Your task to perform on an android device: Empty the shopping cart on walmart. Search for "bose quietcomfort 35" on walmart, select the first entry, and add it to the cart. Image 0: 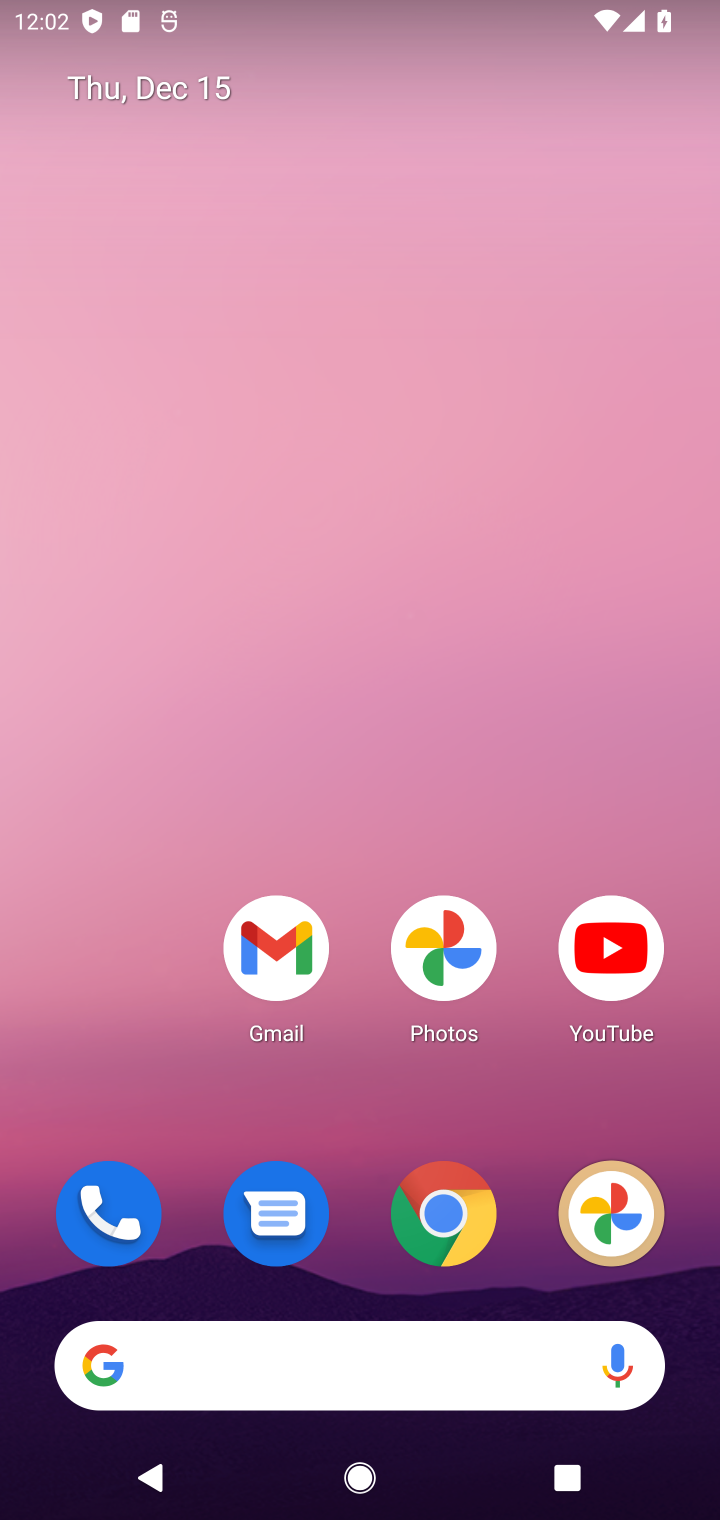
Step 0: click (433, 1231)
Your task to perform on an android device: Empty the shopping cart on walmart. Search for "bose quietcomfort 35" on walmart, select the first entry, and add it to the cart. Image 1: 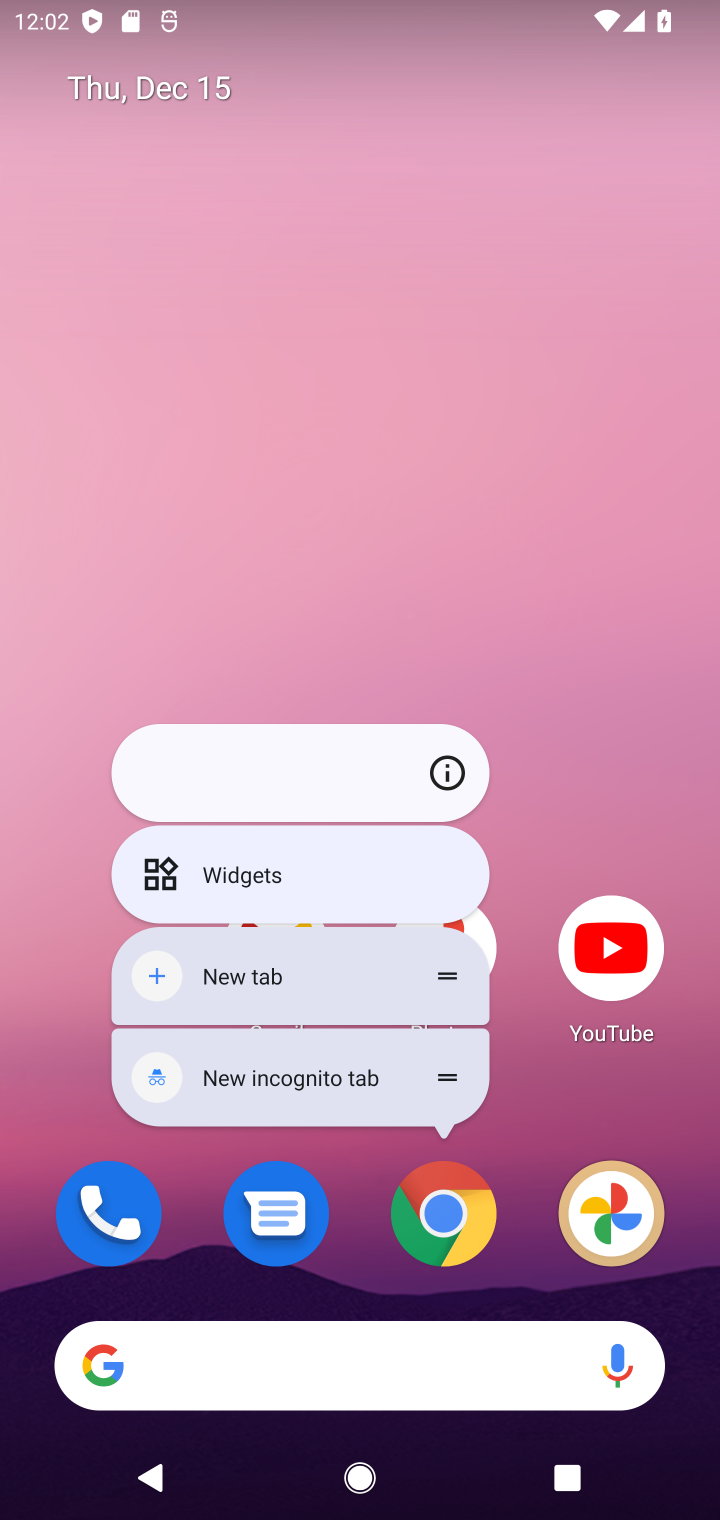
Step 1: click (328, 1406)
Your task to perform on an android device: Empty the shopping cart on walmart. Search for "bose quietcomfort 35" on walmart, select the first entry, and add it to the cart. Image 2: 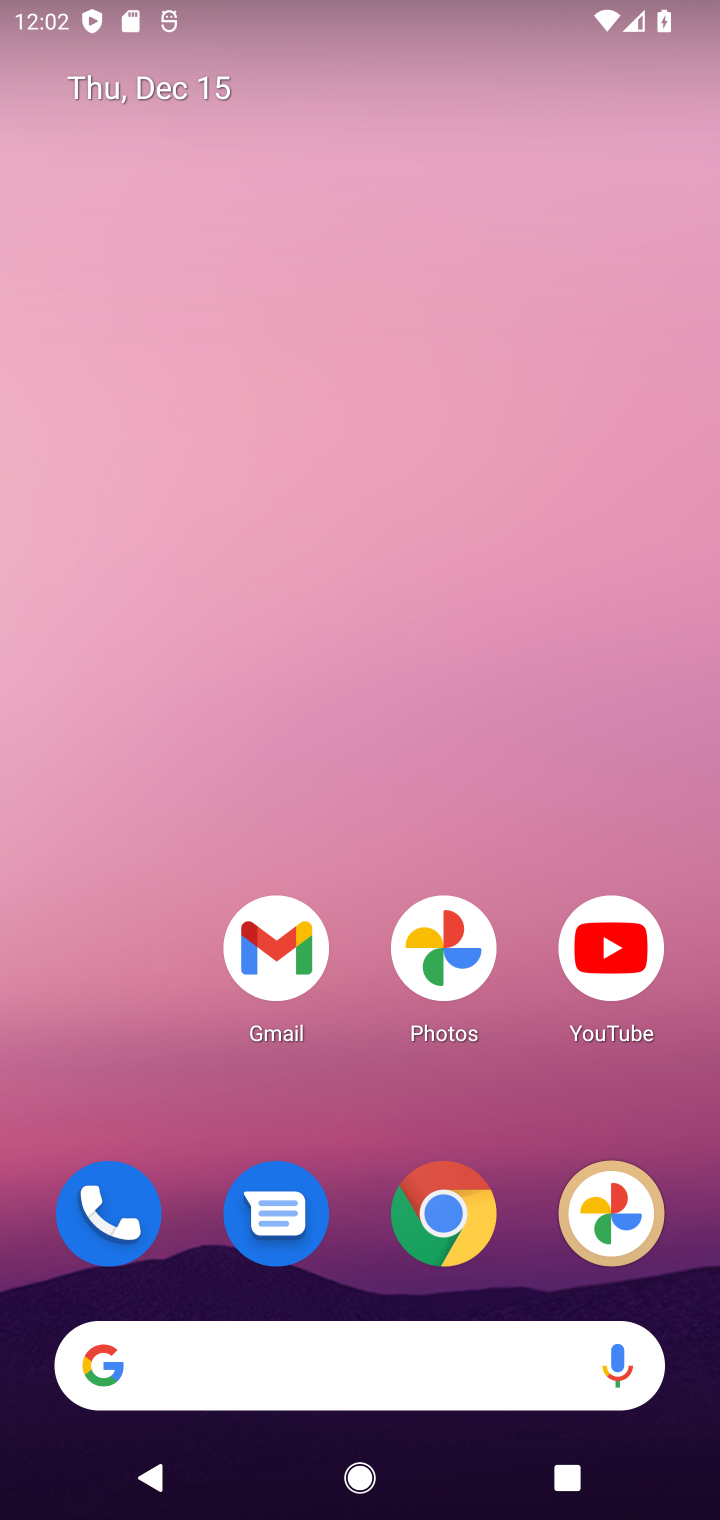
Step 2: click (450, 1337)
Your task to perform on an android device: Empty the shopping cart on walmart. Search for "bose quietcomfort 35" on walmart, select the first entry, and add it to the cart. Image 3: 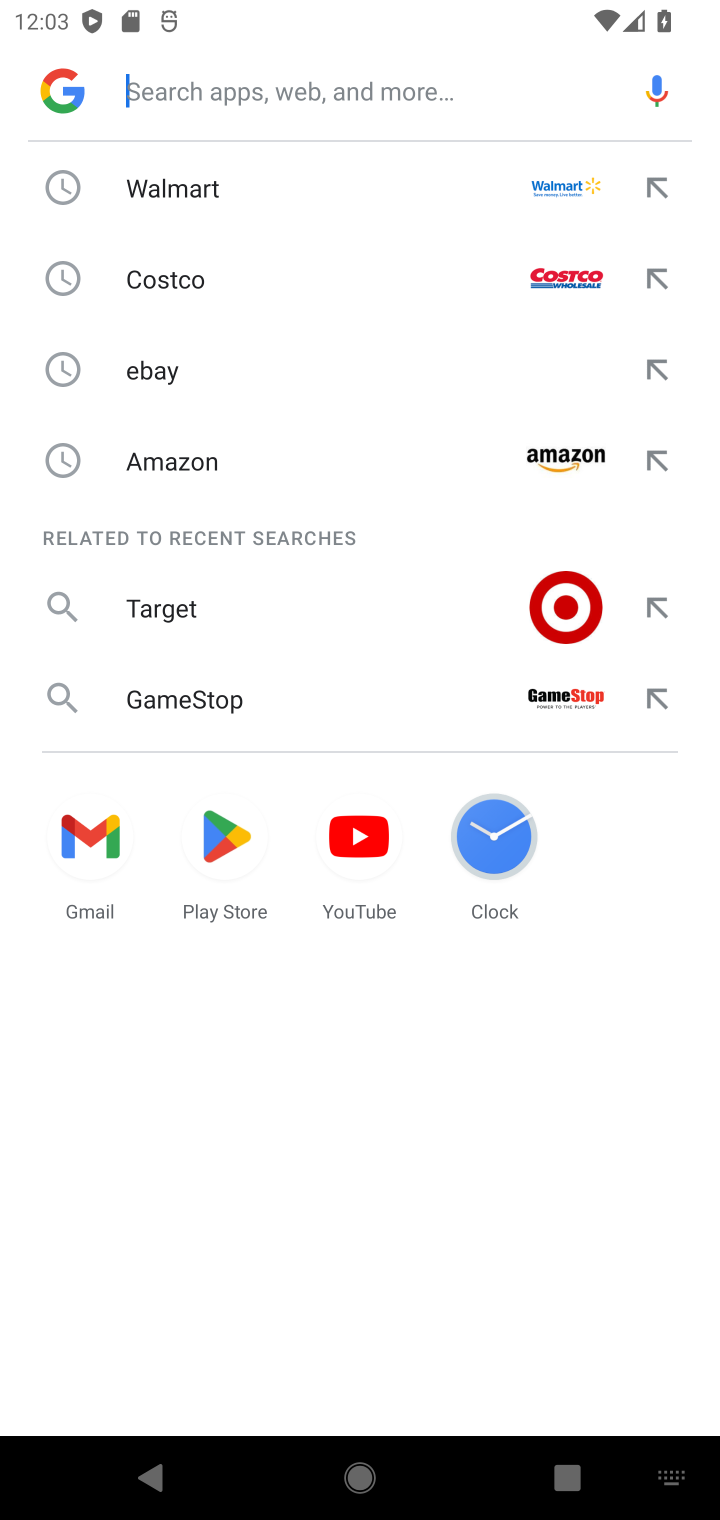
Step 3: click (257, 192)
Your task to perform on an android device: Empty the shopping cart on walmart. Search for "bose quietcomfort 35" on walmart, select the first entry, and add it to the cart. Image 4: 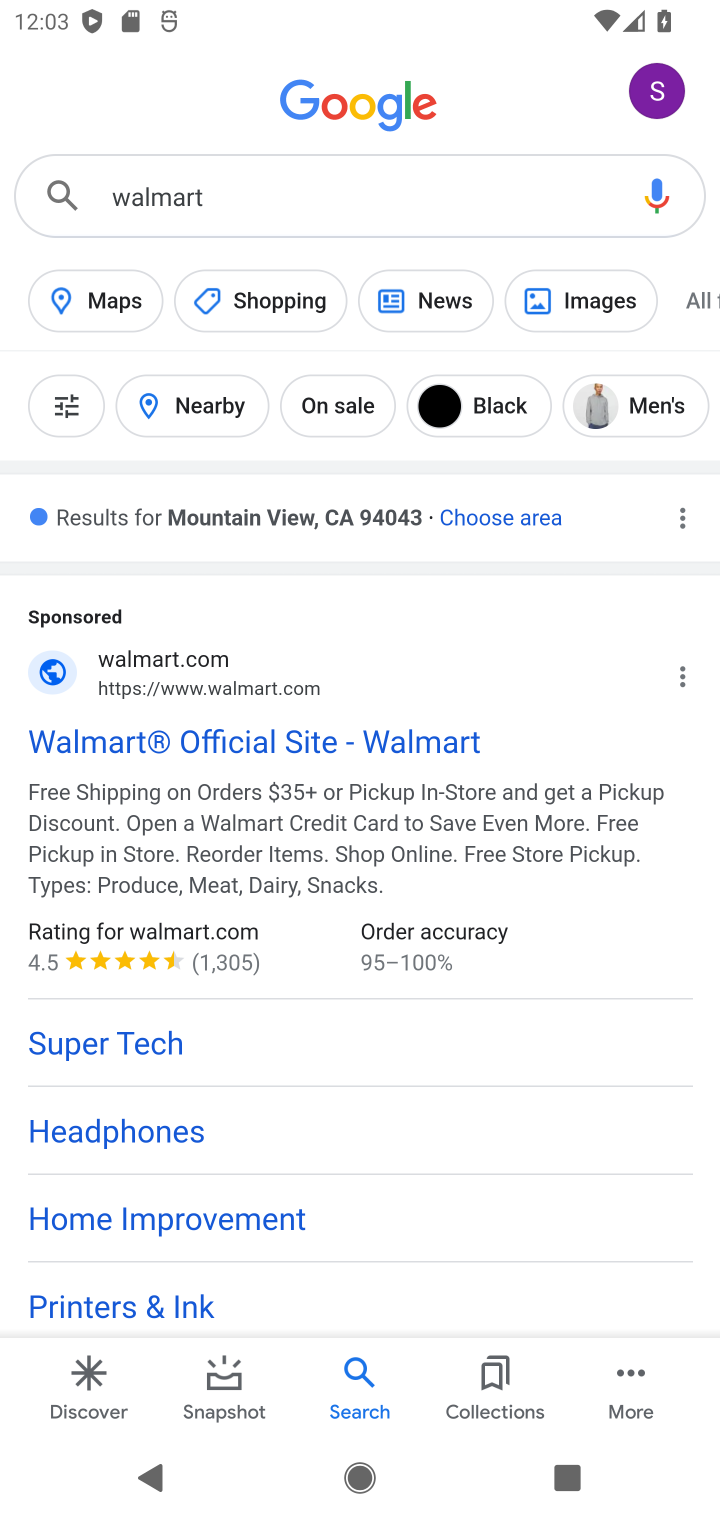
Step 4: click (163, 705)
Your task to perform on an android device: Empty the shopping cart on walmart. Search for "bose quietcomfort 35" on walmart, select the first entry, and add it to the cart. Image 5: 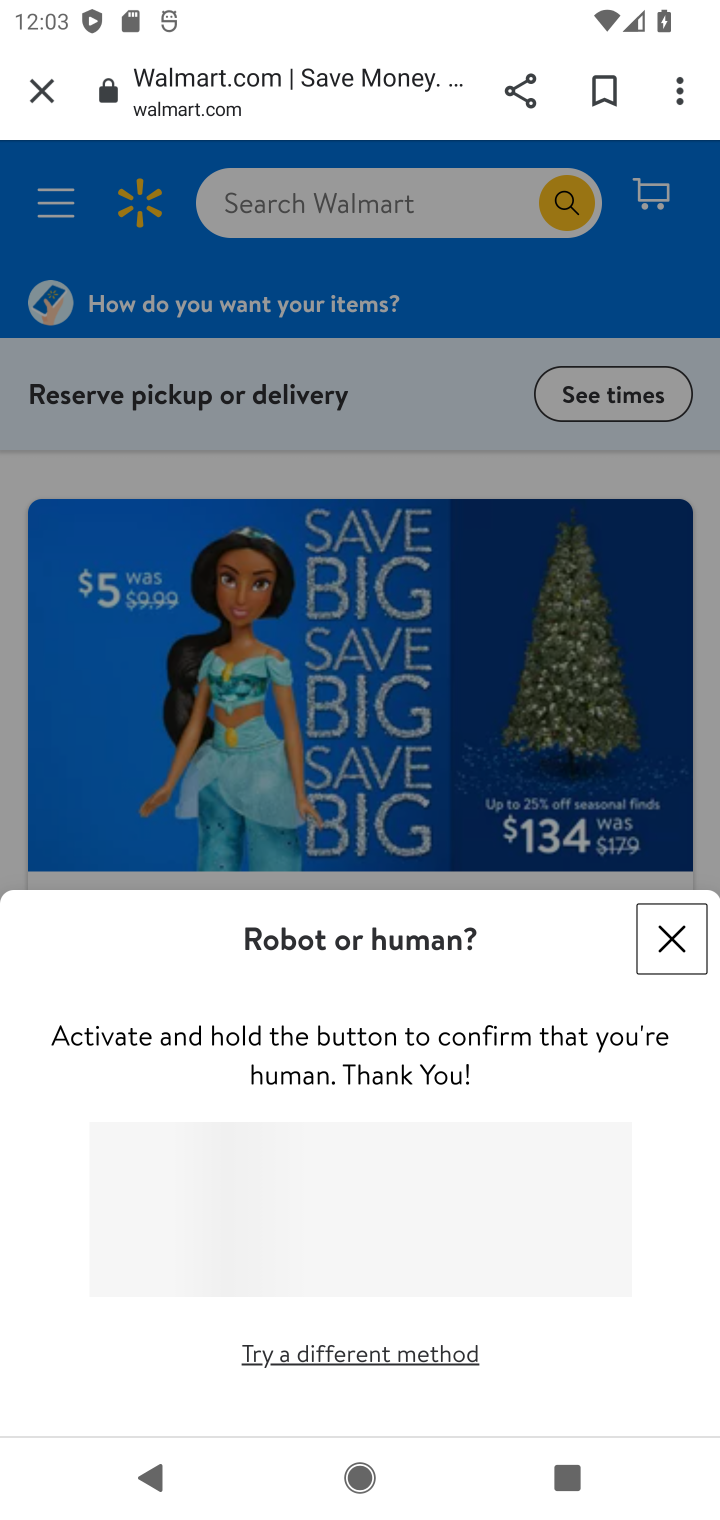
Step 5: click (336, 206)
Your task to perform on an android device: Empty the shopping cart on walmart. Search for "bose quietcomfort 35" on walmart, select the first entry, and add it to the cart. Image 6: 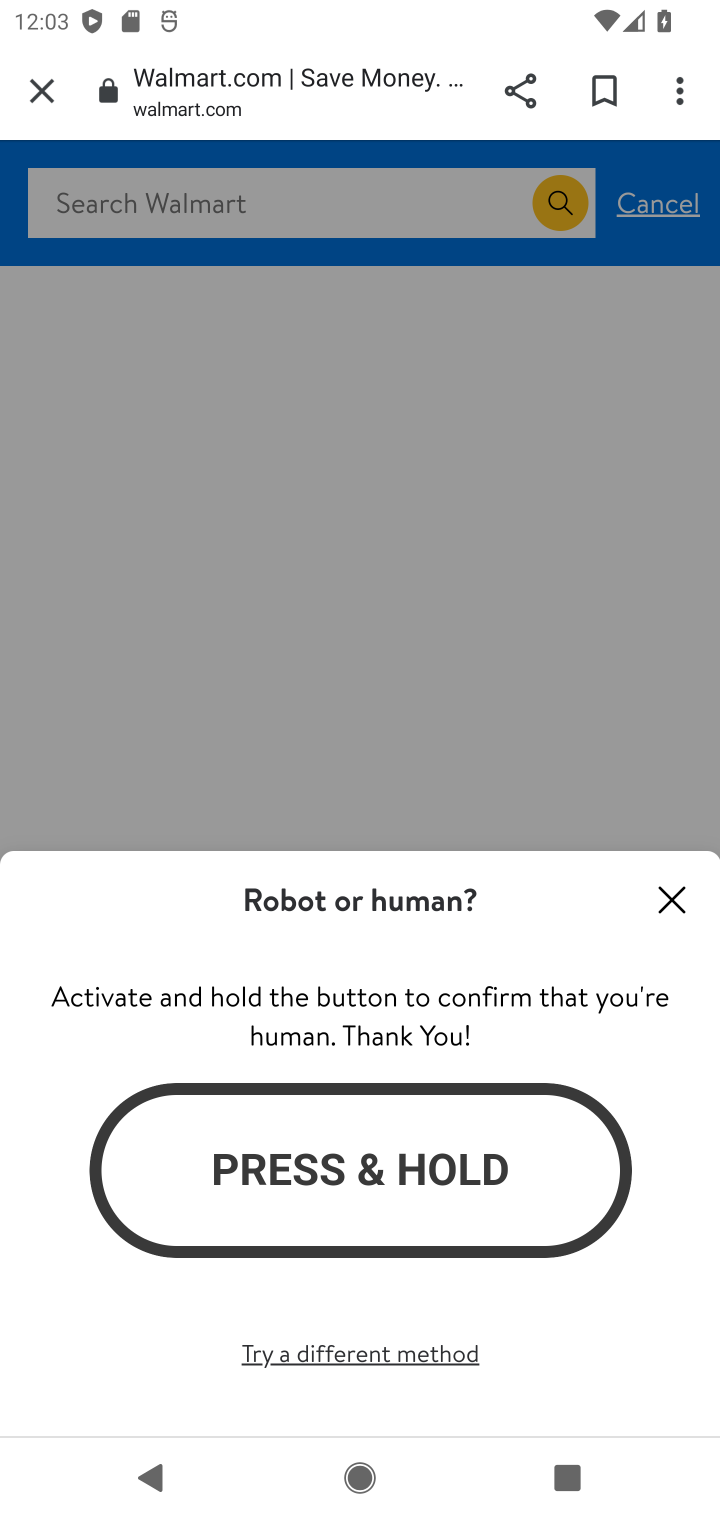
Step 6: type "bose quietcomfort 35"
Your task to perform on an android device: Empty the shopping cart on walmart. Search for "bose quietcomfort 35" on walmart, select the first entry, and add it to the cart. Image 7: 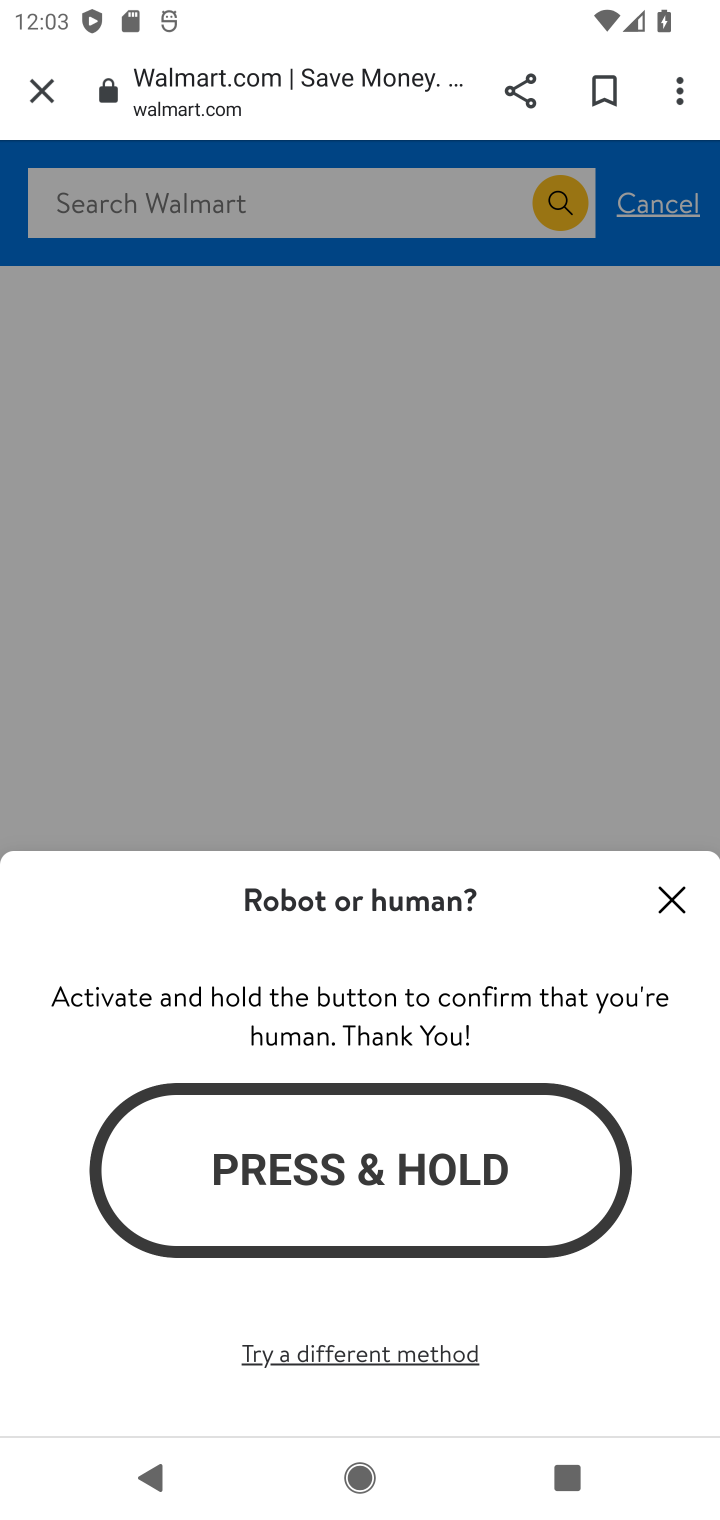
Step 7: click (682, 909)
Your task to perform on an android device: Empty the shopping cart on walmart. Search for "bose quietcomfort 35" on walmart, select the first entry, and add it to the cart. Image 8: 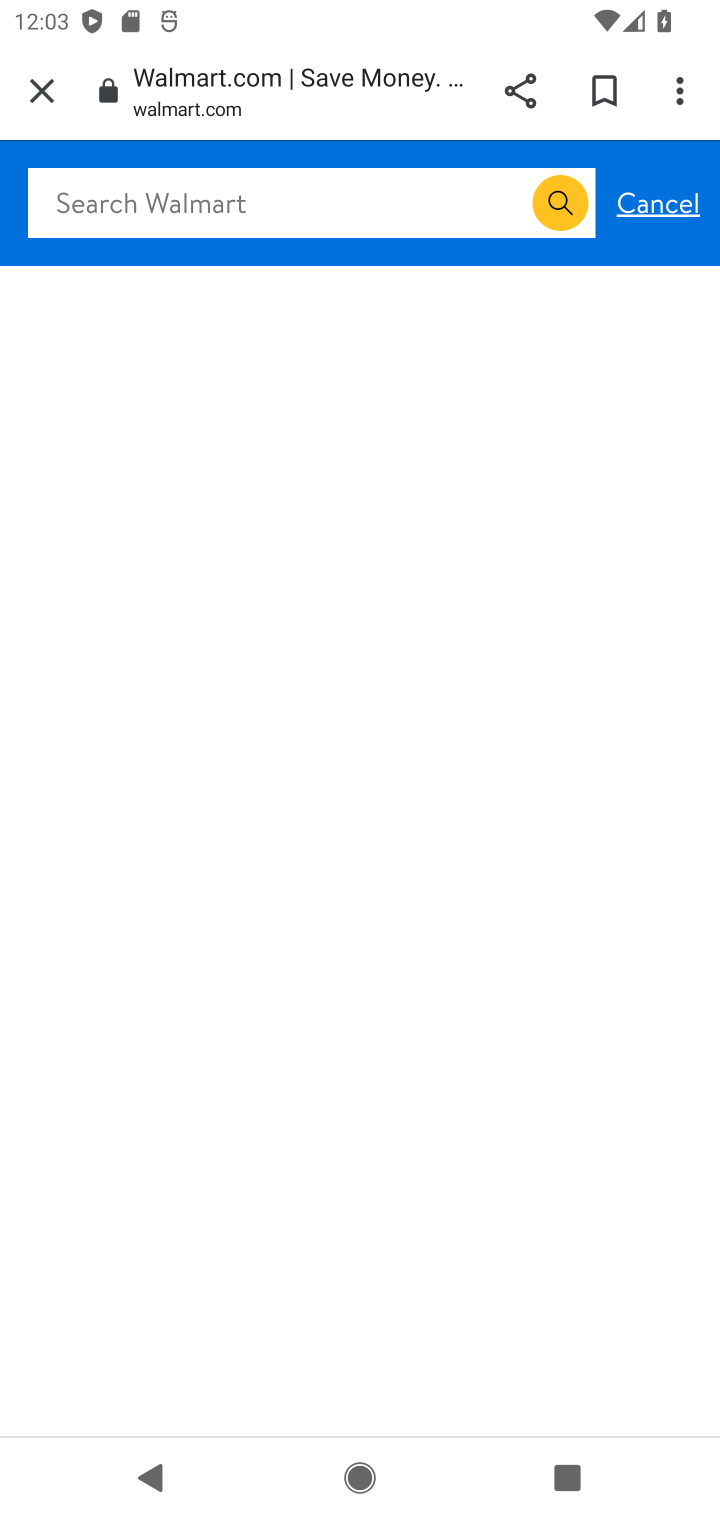
Step 8: click (230, 210)
Your task to perform on an android device: Empty the shopping cart on walmart. Search for "bose quietcomfort 35" on walmart, select the first entry, and add it to the cart. Image 9: 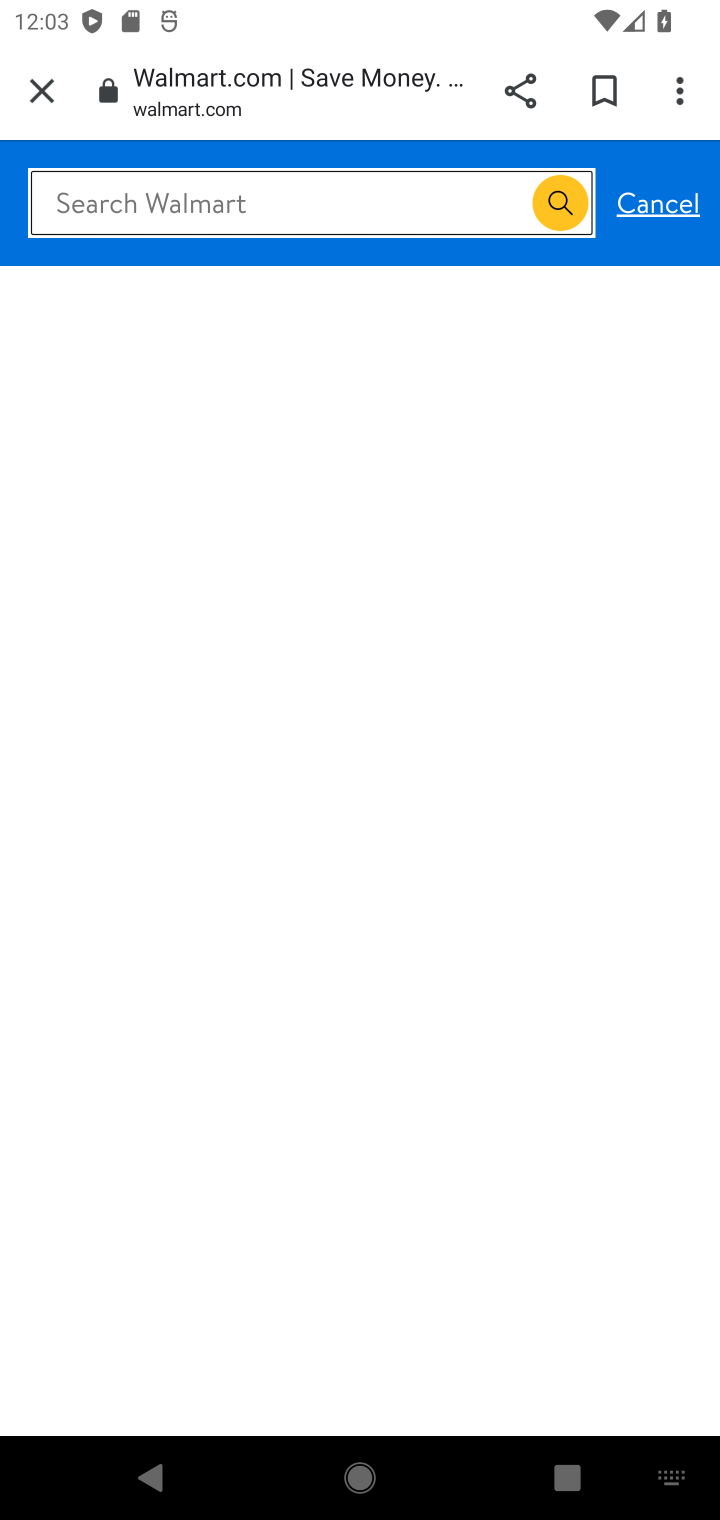
Step 9: type "bose quietcomfrt"
Your task to perform on an android device: Empty the shopping cart on walmart. Search for "bose quietcomfort 35" on walmart, select the first entry, and add it to the cart. Image 10: 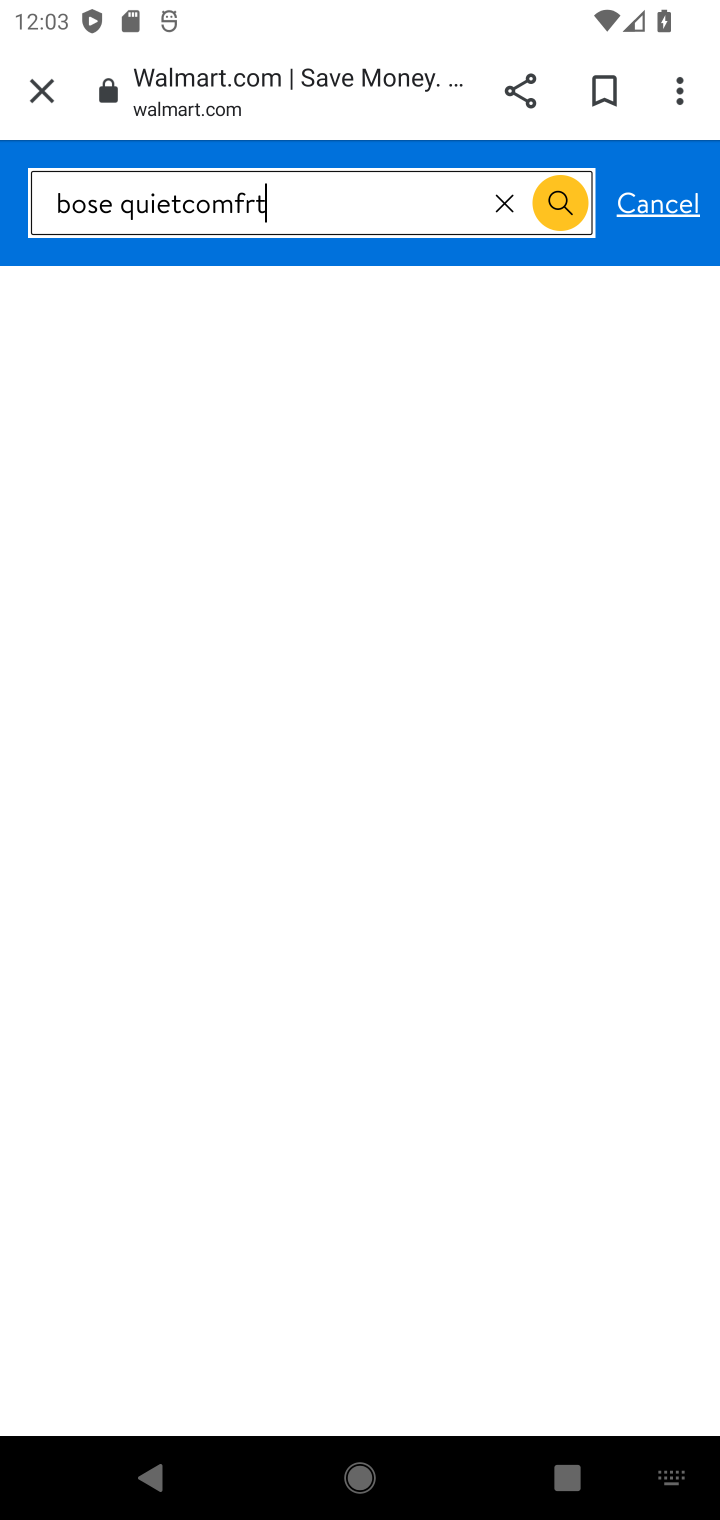
Step 10: click (557, 216)
Your task to perform on an android device: Empty the shopping cart on walmart. Search for "bose quietcomfort 35" on walmart, select the first entry, and add it to the cart. Image 11: 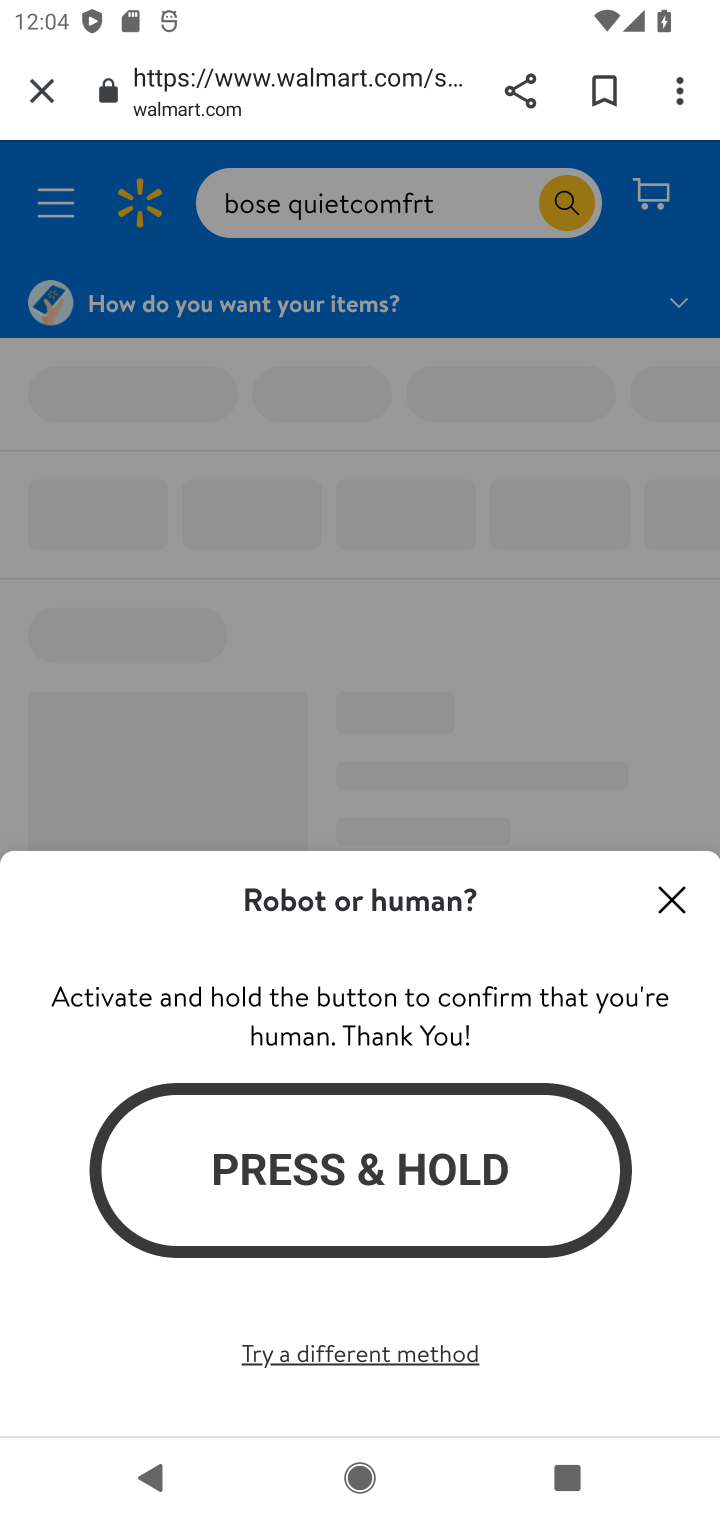
Step 11: click (248, 110)
Your task to perform on an android device: Empty the shopping cart on walmart. Search for "bose quietcomfort 35" on walmart, select the first entry, and add it to the cart. Image 12: 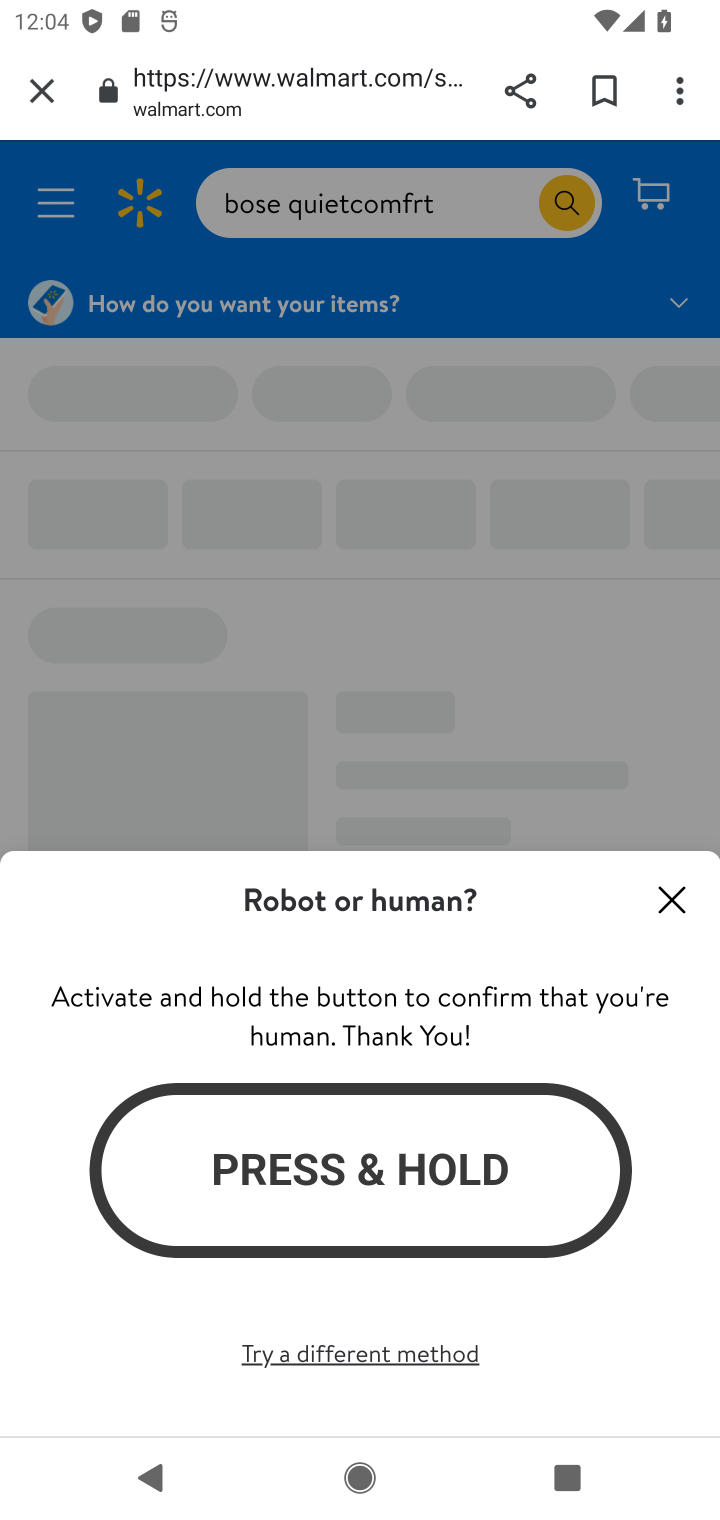
Step 12: click (556, 605)
Your task to perform on an android device: Empty the shopping cart on walmart. Search for "bose quietcomfort 35" on walmart, select the first entry, and add it to the cart. Image 13: 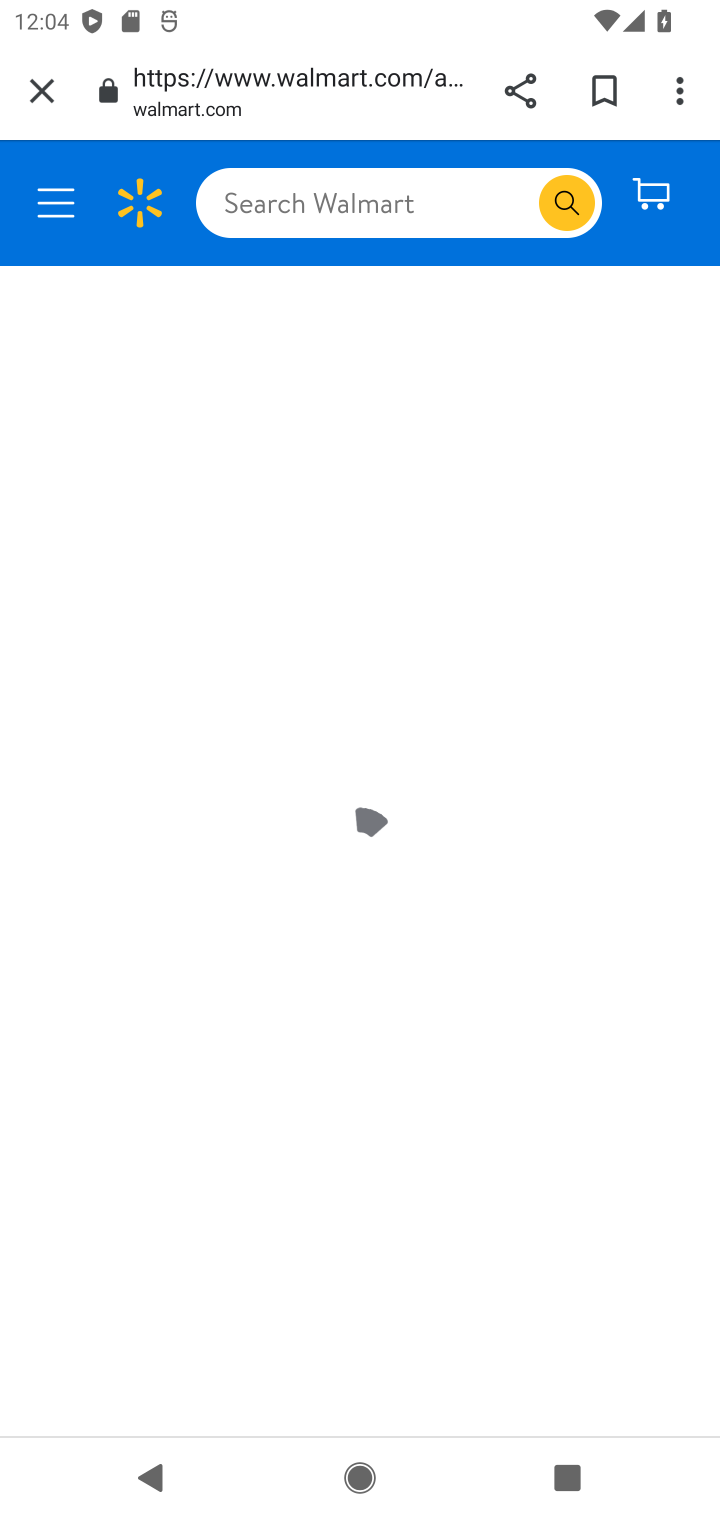
Step 13: click (680, 896)
Your task to perform on an android device: Empty the shopping cart on walmart. Search for "bose quietcomfort 35" on walmart, select the first entry, and add it to the cart. Image 14: 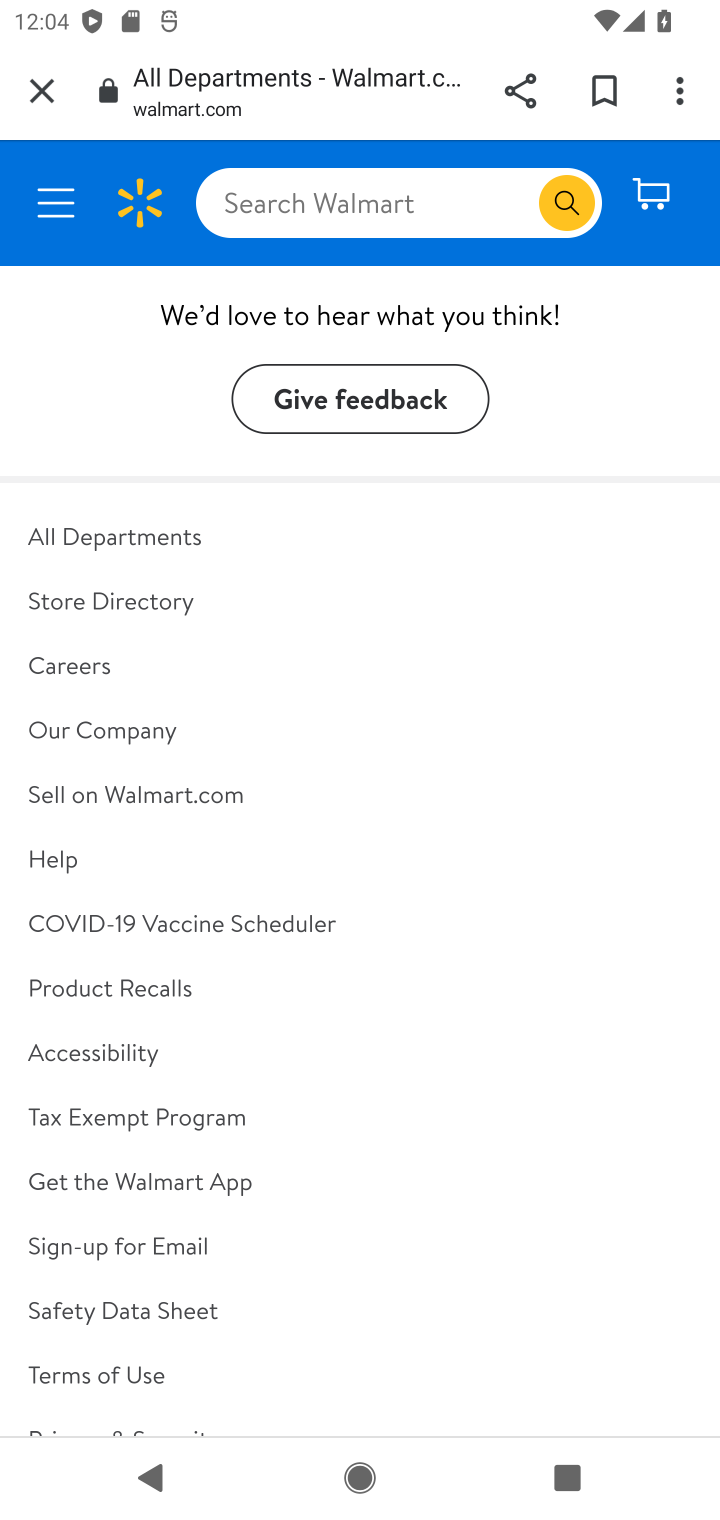
Step 14: click (321, 213)
Your task to perform on an android device: Empty the shopping cart on walmart. Search for "bose quietcomfort 35" on walmart, select the first entry, and add it to the cart. Image 15: 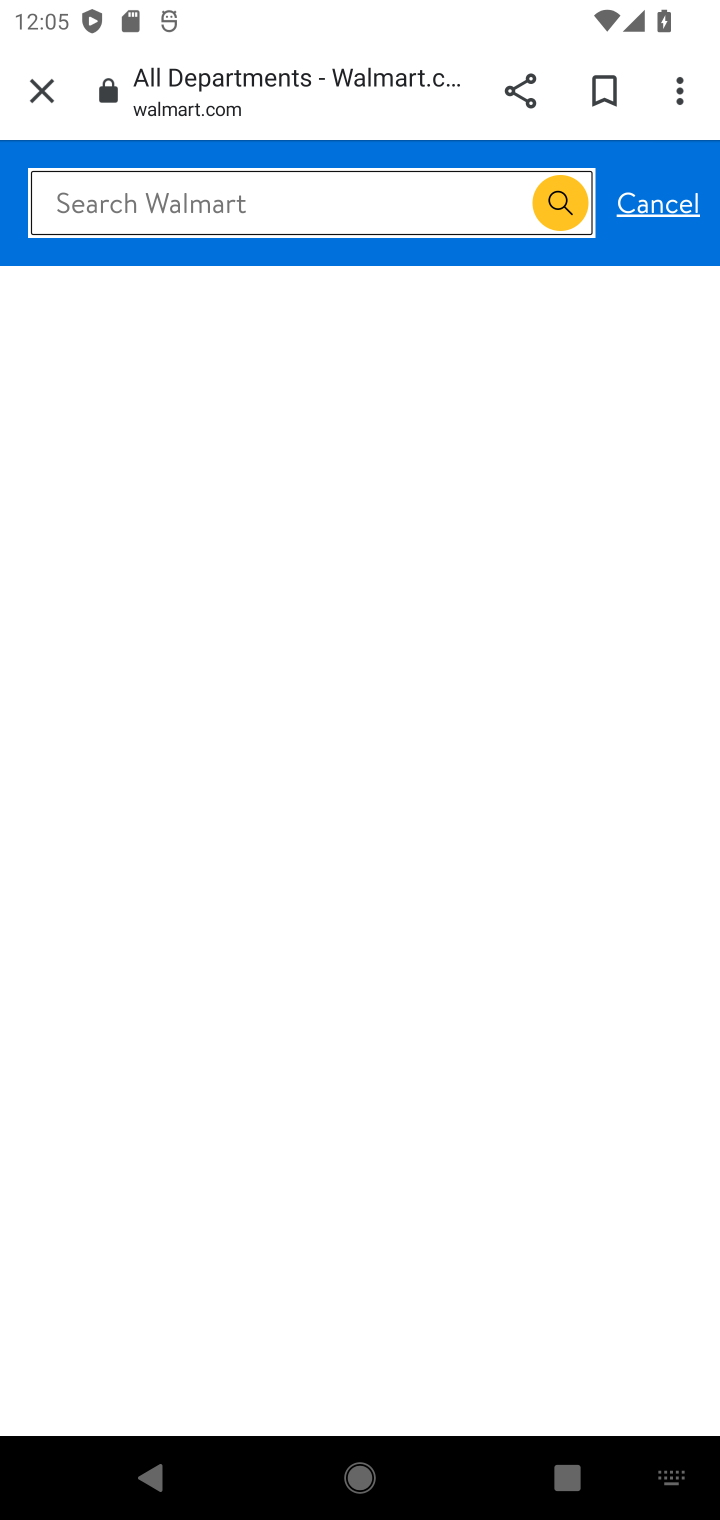
Step 15: type "bose quietcomfort"
Your task to perform on an android device: Empty the shopping cart on walmart. Search for "bose quietcomfort 35" on walmart, select the first entry, and add it to the cart. Image 16: 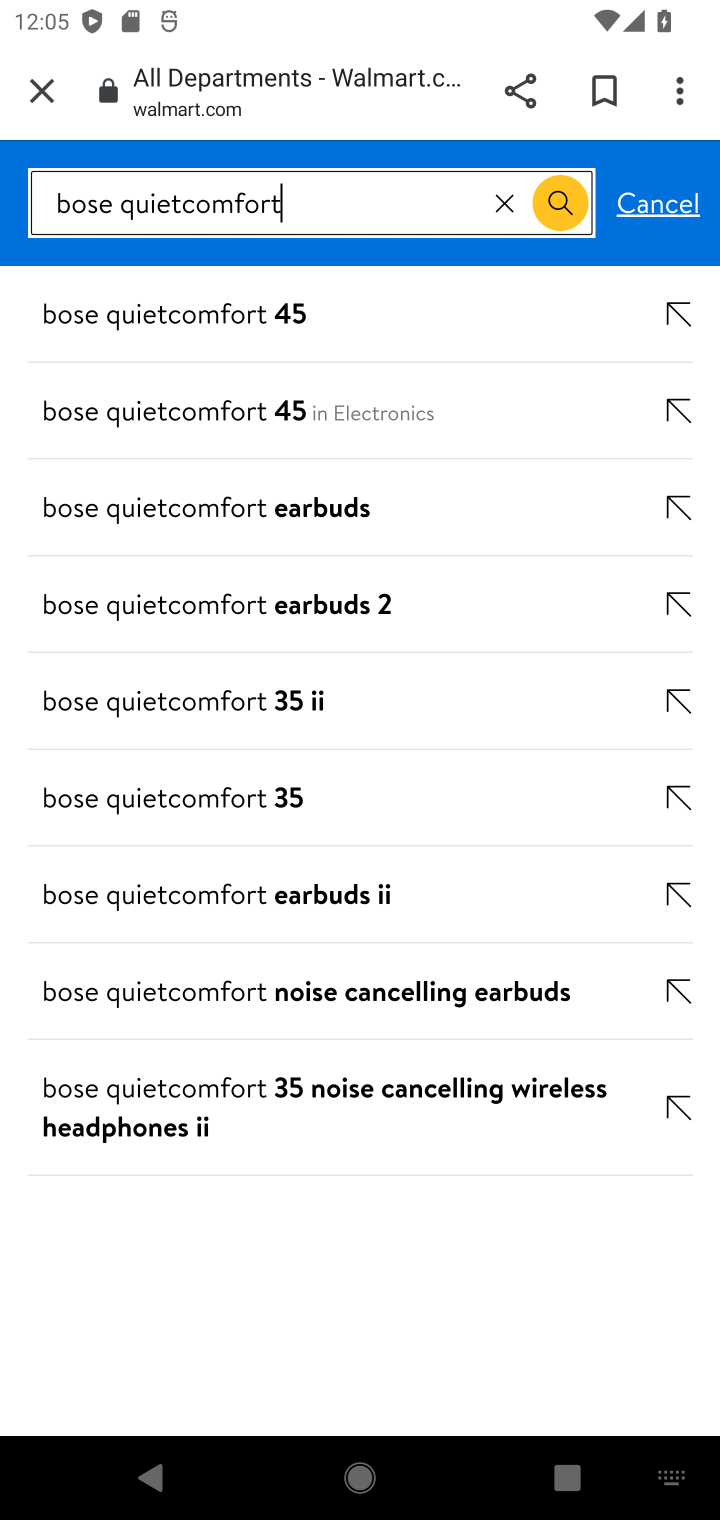
Step 16: click (151, 329)
Your task to perform on an android device: Empty the shopping cart on walmart. Search for "bose quietcomfort 35" on walmart, select the first entry, and add it to the cart. Image 17: 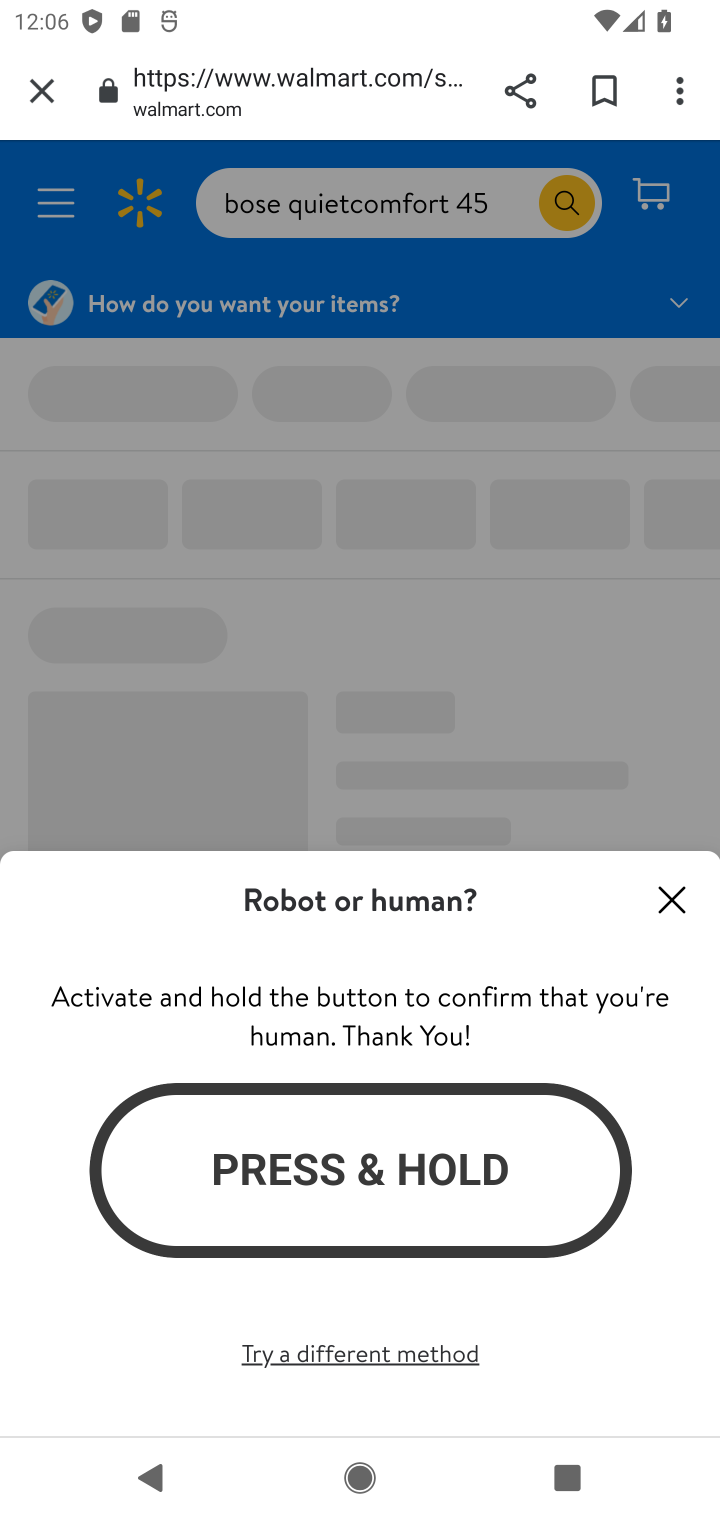
Step 17: task complete